Your task to perform on an android device: change your default location settings in chrome Image 0: 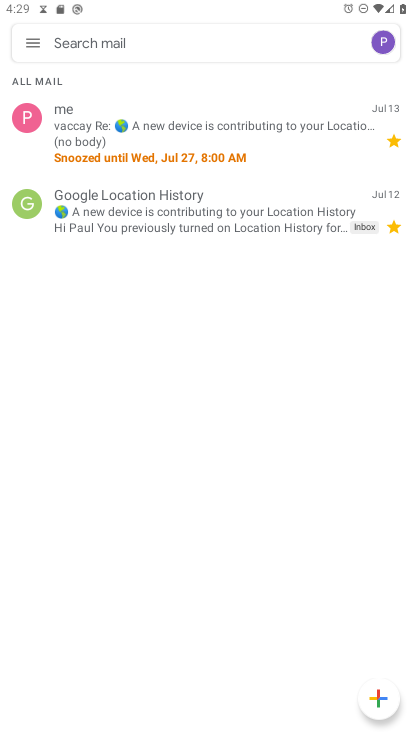
Step 0: press home button
Your task to perform on an android device: change your default location settings in chrome Image 1: 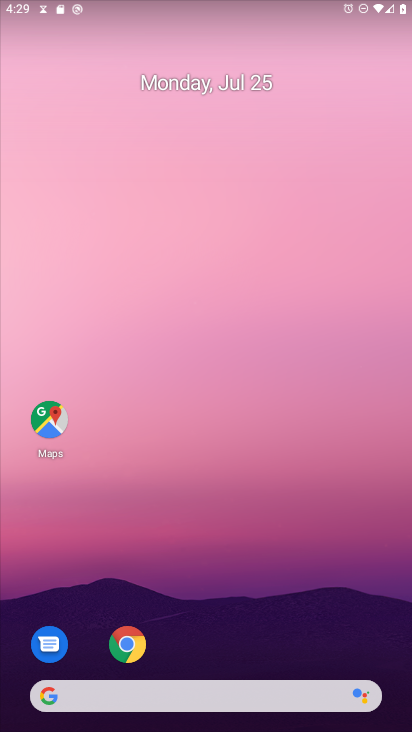
Step 1: click (133, 642)
Your task to perform on an android device: change your default location settings in chrome Image 2: 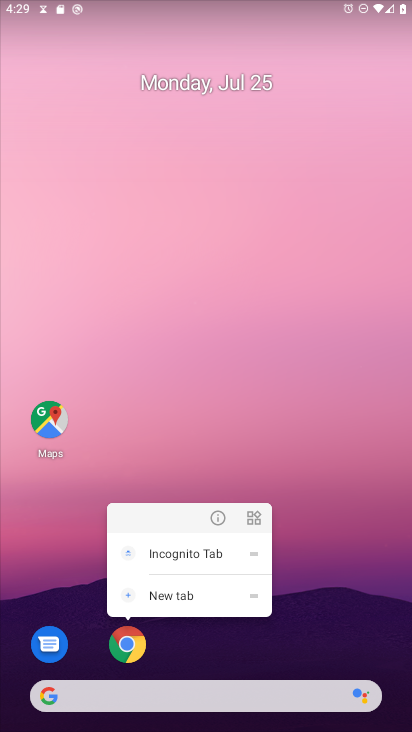
Step 2: click (133, 648)
Your task to perform on an android device: change your default location settings in chrome Image 3: 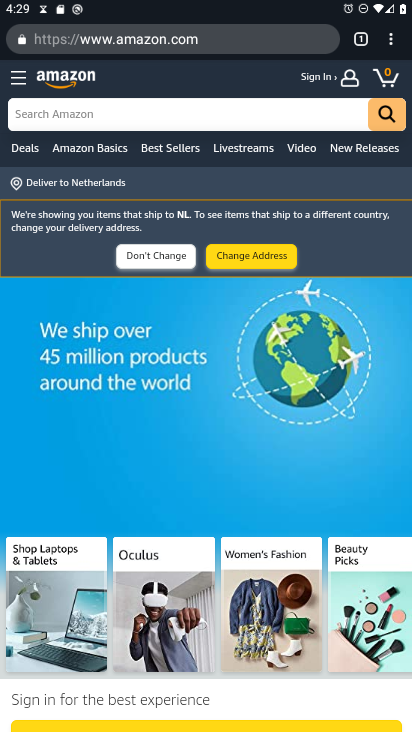
Step 3: drag from (388, 45) to (258, 477)
Your task to perform on an android device: change your default location settings in chrome Image 4: 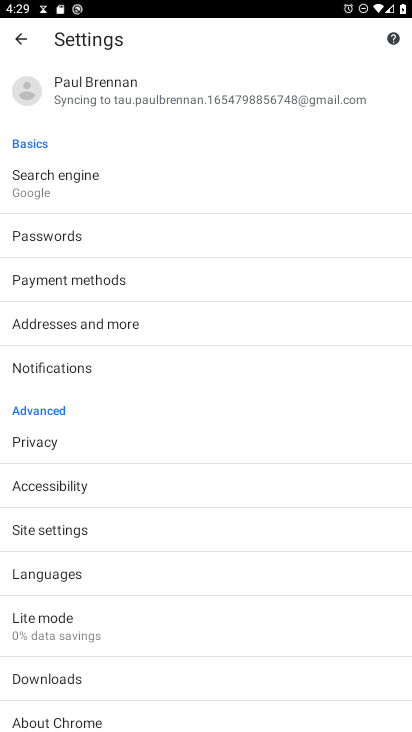
Step 4: click (50, 530)
Your task to perform on an android device: change your default location settings in chrome Image 5: 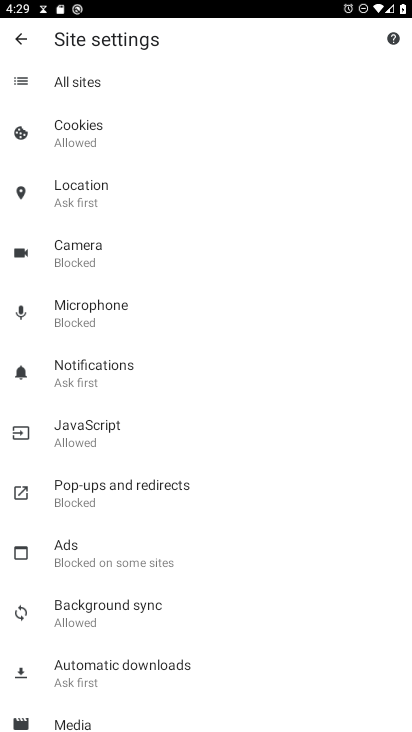
Step 5: click (76, 196)
Your task to perform on an android device: change your default location settings in chrome Image 6: 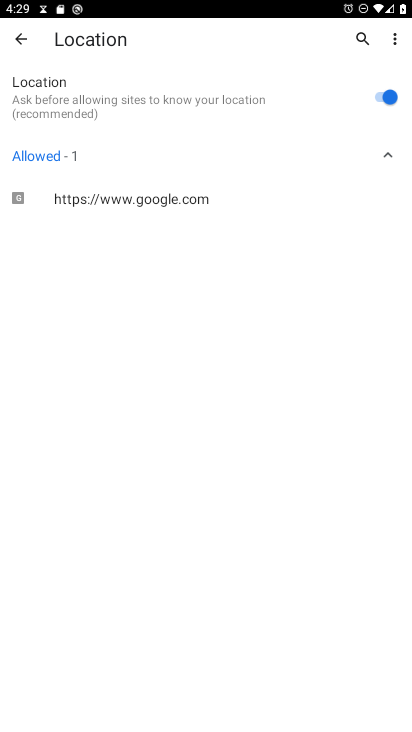
Step 6: click (380, 90)
Your task to perform on an android device: change your default location settings in chrome Image 7: 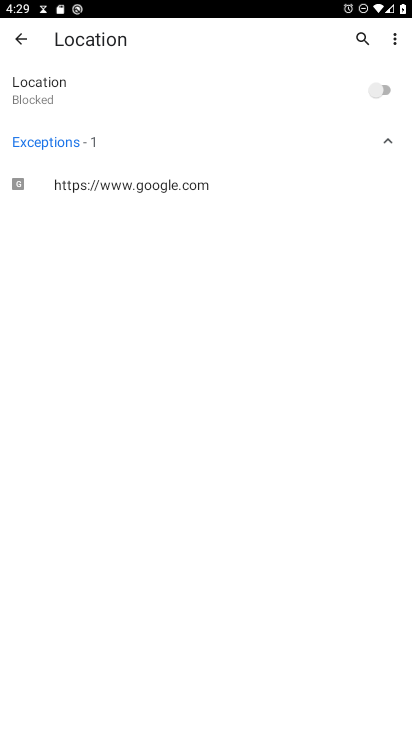
Step 7: task complete